Your task to perform on an android device: Show me recent news Image 0: 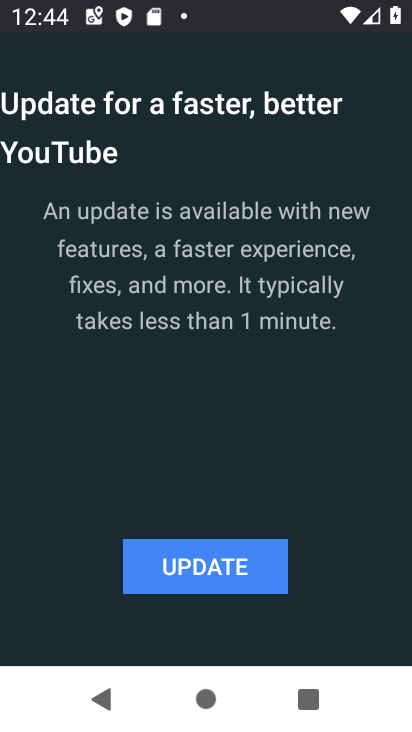
Step 0: click (358, 472)
Your task to perform on an android device: Show me recent news Image 1: 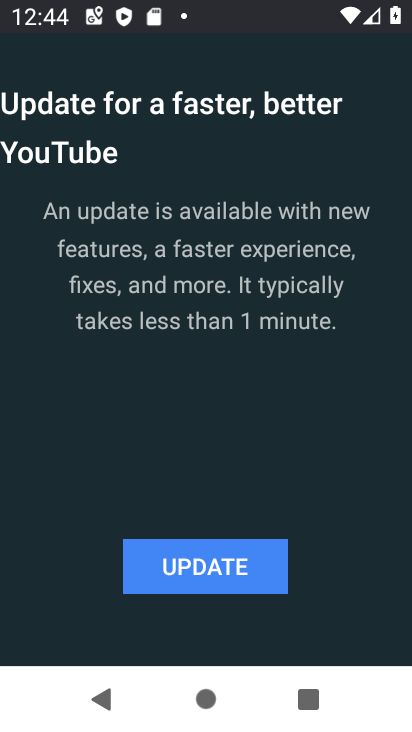
Step 1: press home button
Your task to perform on an android device: Show me recent news Image 2: 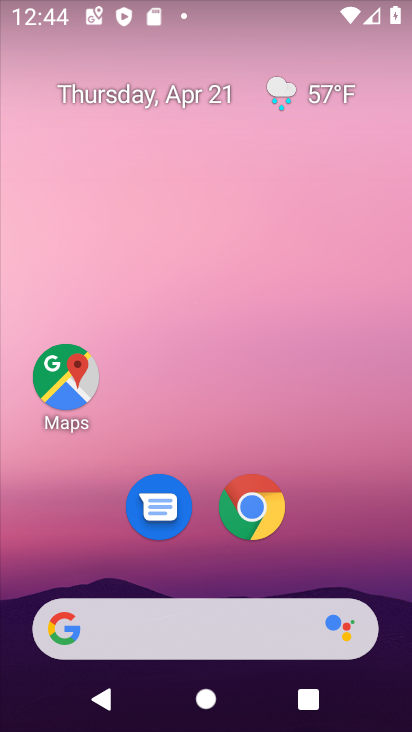
Step 2: drag from (227, 567) to (245, 348)
Your task to perform on an android device: Show me recent news Image 3: 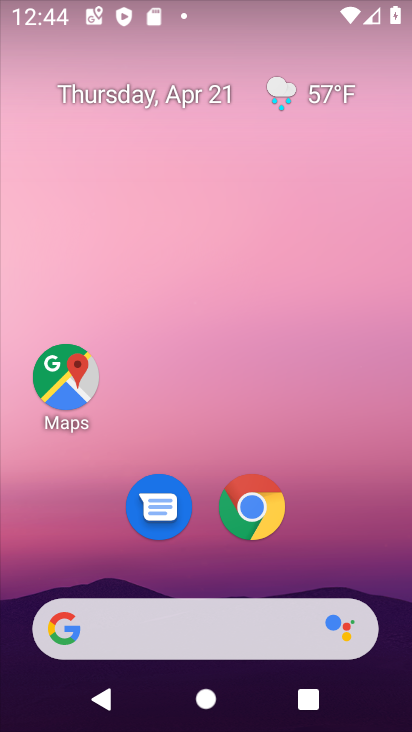
Step 3: drag from (186, 567) to (309, 223)
Your task to perform on an android device: Show me recent news Image 4: 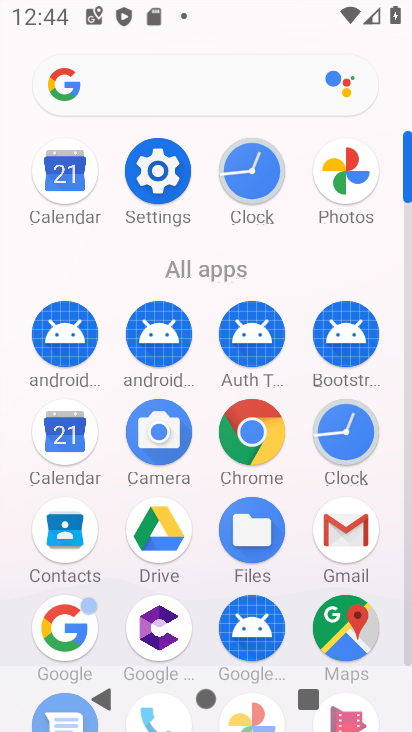
Step 4: drag from (217, 580) to (225, 432)
Your task to perform on an android device: Show me recent news Image 5: 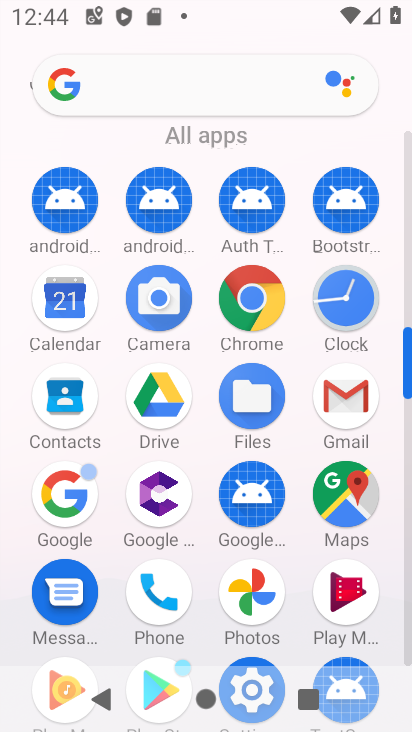
Step 5: click (254, 301)
Your task to perform on an android device: Show me recent news Image 6: 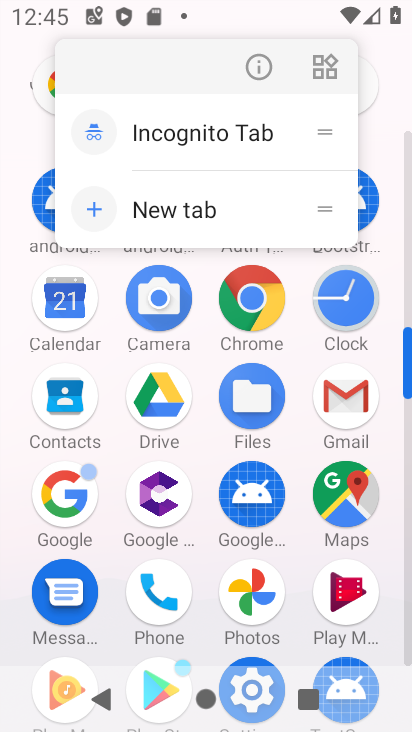
Step 6: click (253, 58)
Your task to perform on an android device: Show me recent news Image 7: 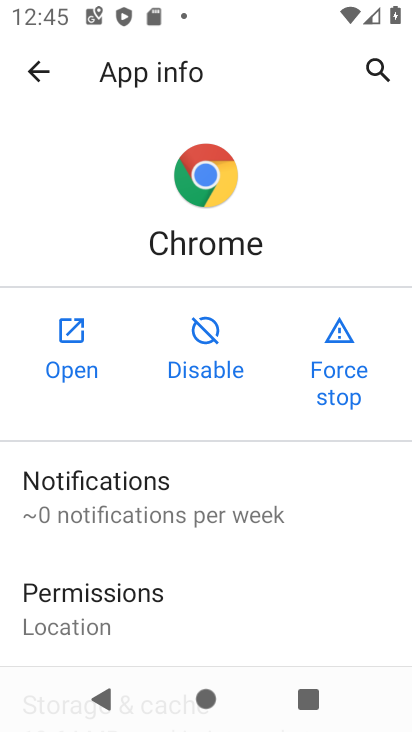
Step 7: click (64, 336)
Your task to perform on an android device: Show me recent news Image 8: 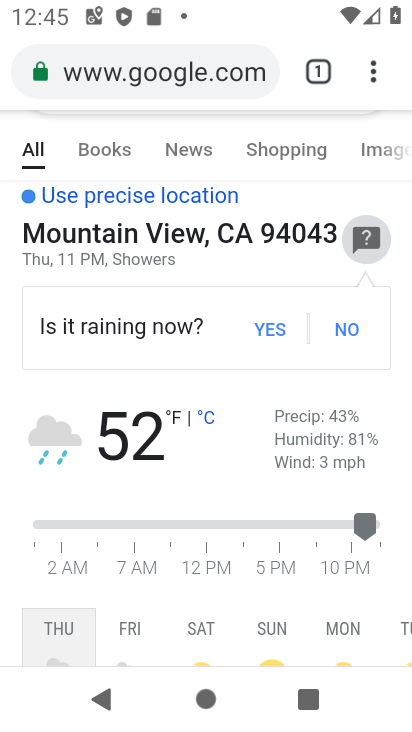
Step 8: click (231, 63)
Your task to perform on an android device: Show me recent news Image 9: 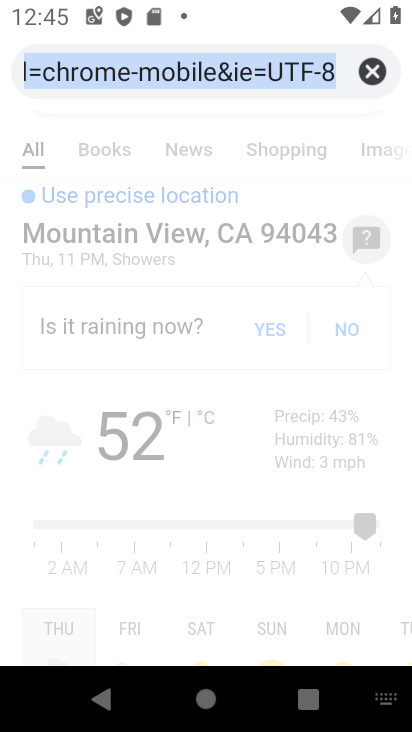
Step 9: click (366, 73)
Your task to perform on an android device: Show me recent news Image 10: 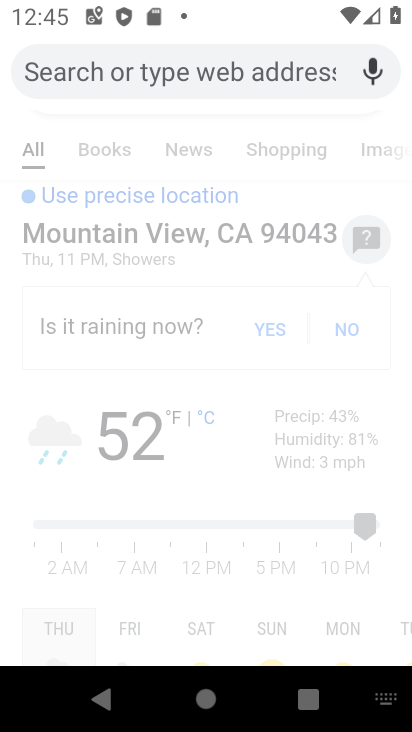
Step 10: type "recent news"
Your task to perform on an android device: Show me recent news Image 11: 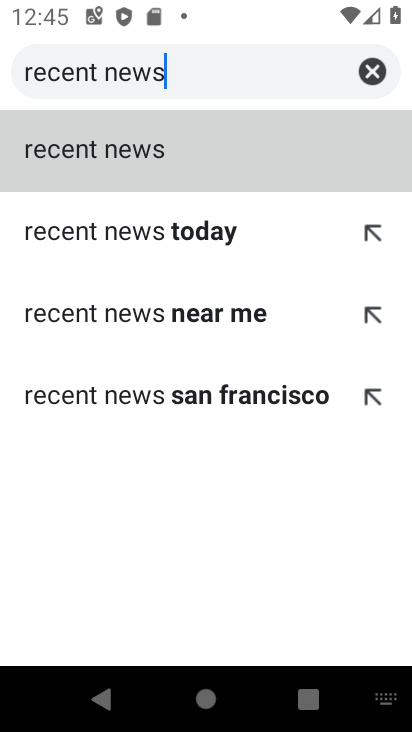
Step 11: click (155, 160)
Your task to perform on an android device: Show me recent news Image 12: 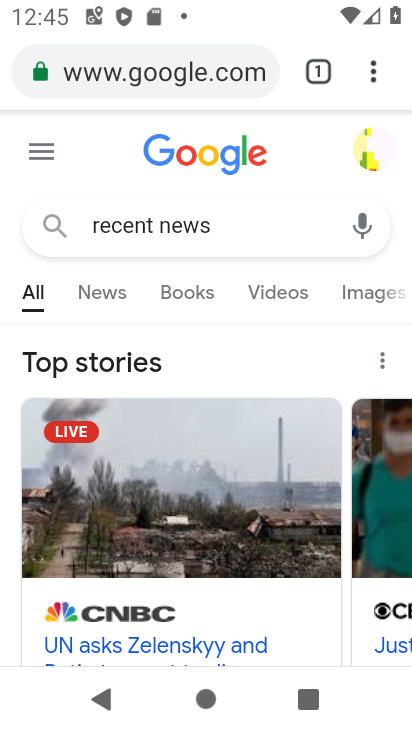
Step 12: task complete